Your task to perform on an android device: Open notification settings Image 0: 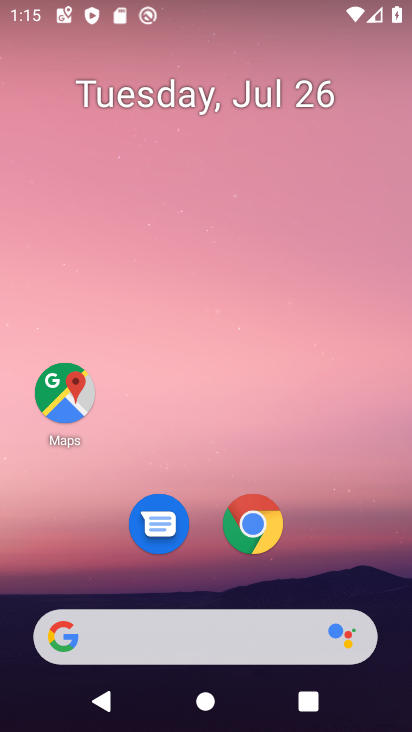
Step 0: drag from (323, 529) to (308, 0)
Your task to perform on an android device: Open notification settings Image 1: 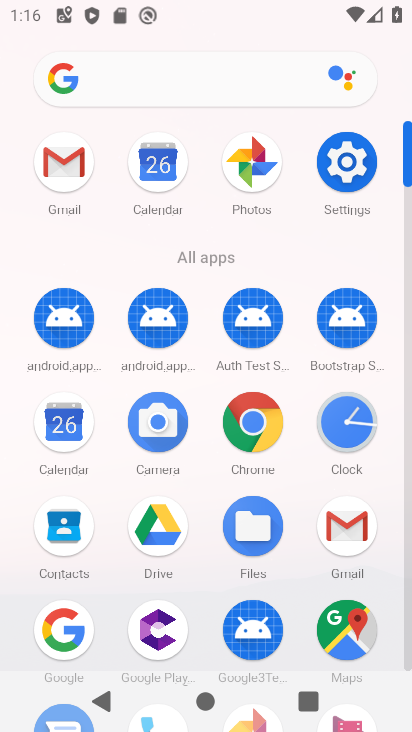
Step 1: click (351, 159)
Your task to perform on an android device: Open notification settings Image 2: 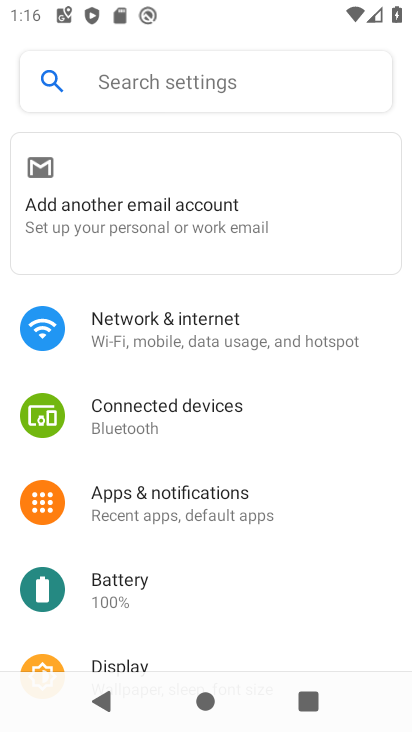
Step 2: click (204, 508)
Your task to perform on an android device: Open notification settings Image 3: 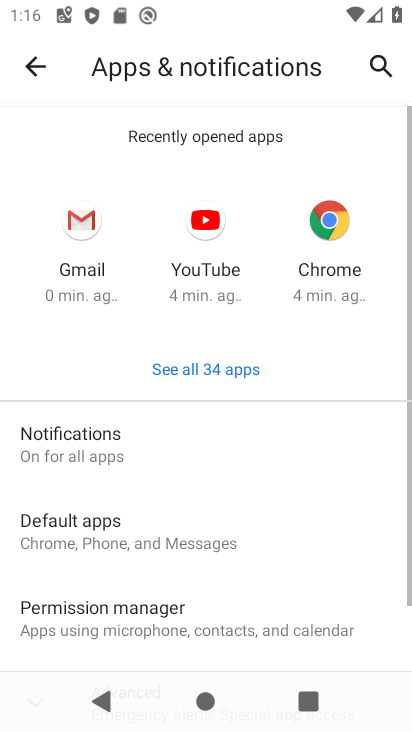
Step 3: click (109, 448)
Your task to perform on an android device: Open notification settings Image 4: 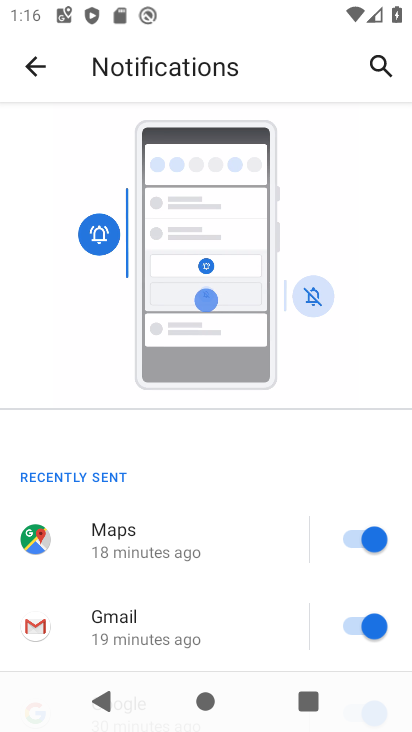
Step 4: task complete